Your task to perform on an android device: Open location settings Image 0: 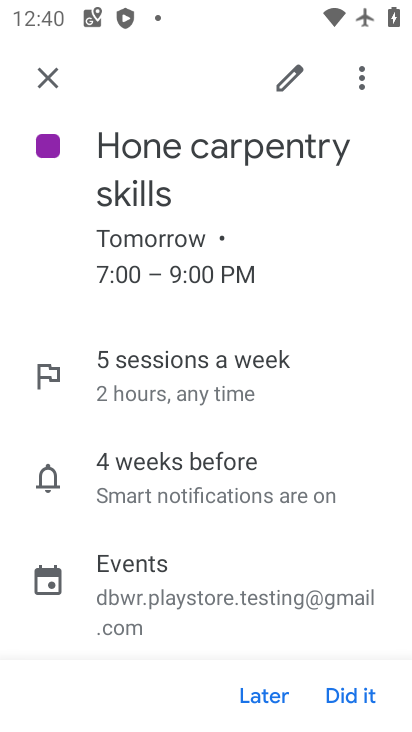
Step 0: press home button
Your task to perform on an android device: Open location settings Image 1: 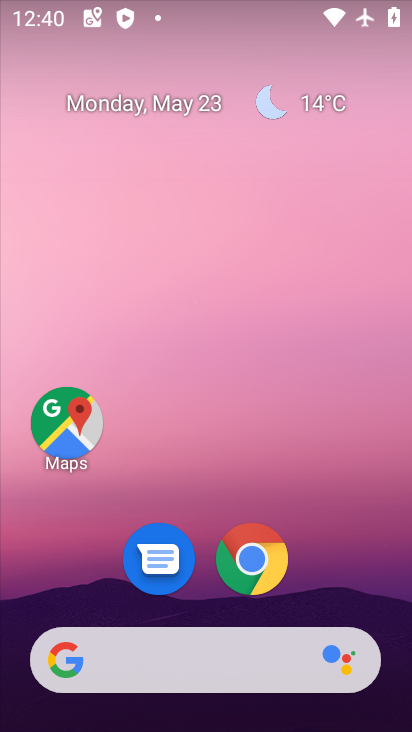
Step 1: drag from (343, 606) to (365, 4)
Your task to perform on an android device: Open location settings Image 2: 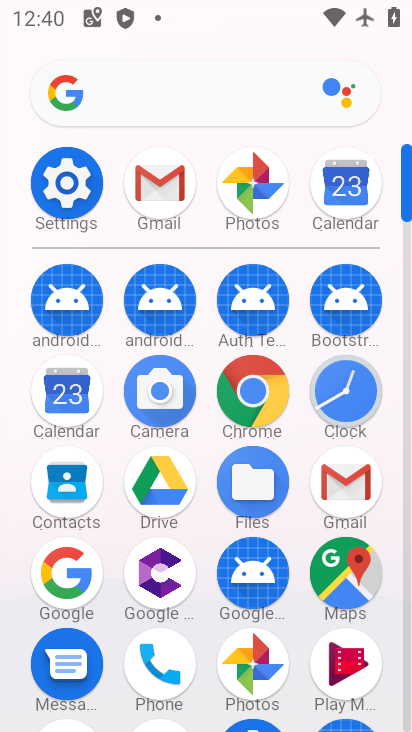
Step 2: click (77, 183)
Your task to perform on an android device: Open location settings Image 3: 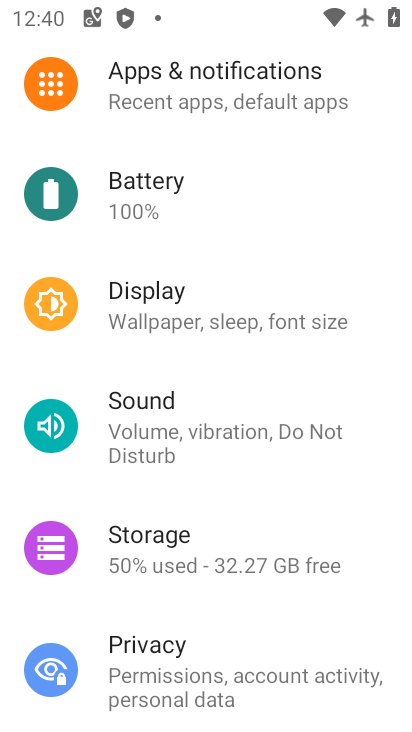
Step 3: drag from (309, 583) to (287, 220)
Your task to perform on an android device: Open location settings Image 4: 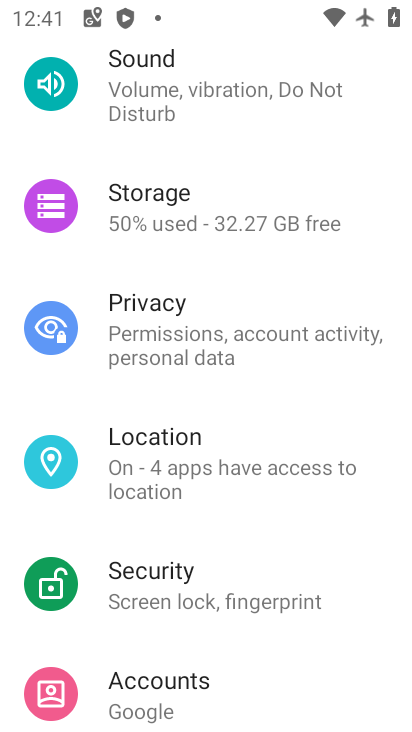
Step 4: click (173, 474)
Your task to perform on an android device: Open location settings Image 5: 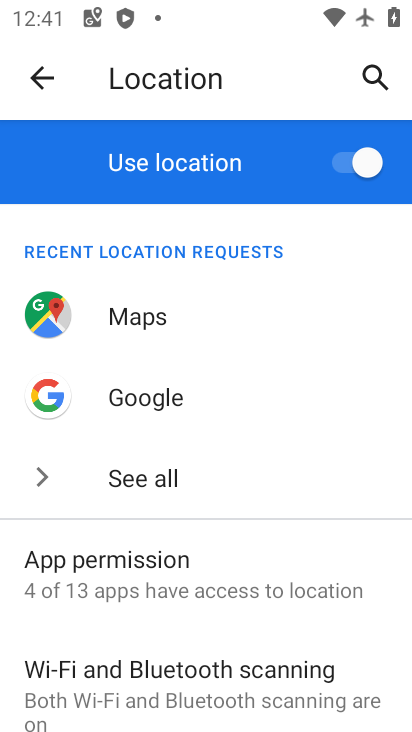
Step 5: task complete